Your task to perform on an android device: Show me popular games on the Play Store Image 0: 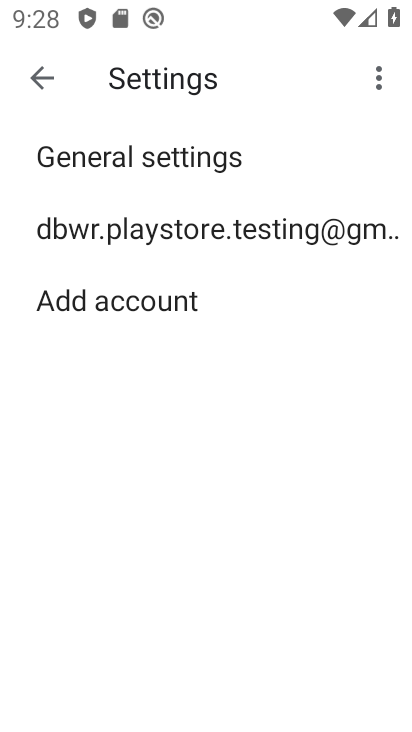
Step 0: press home button
Your task to perform on an android device: Show me popular games on the Play Store Image 1: 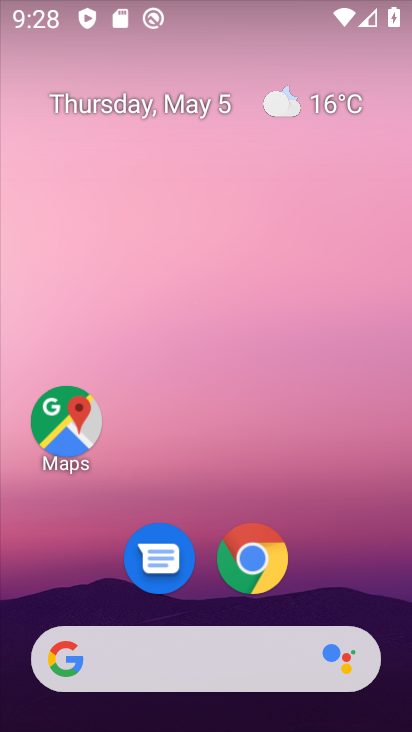
Step 1: drag from (327, 537) to (199, 84)
Your task to perform on an android device: Show me popular games on the Play Store Image 2: 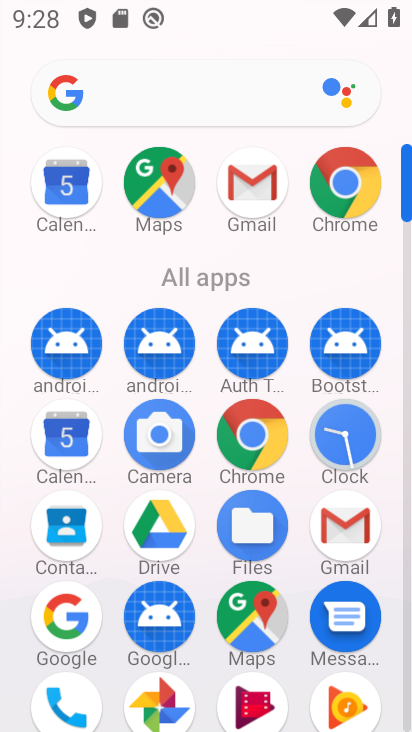
Step 2: drag from (298, 577) to (277, 345)
Your task to perform on an android device: Show me popular games on the Play Store Image 3: 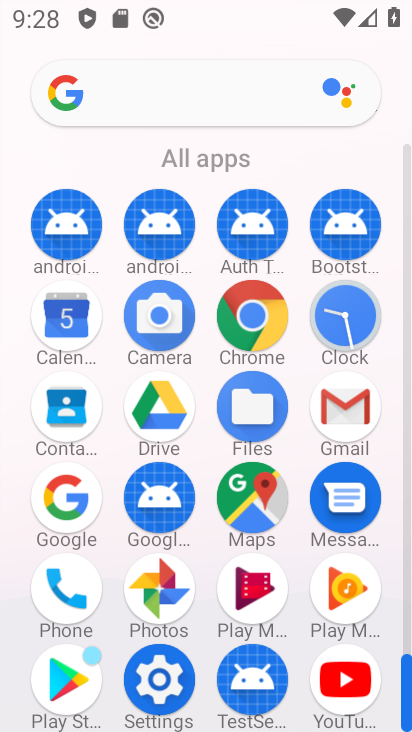
Step 3: click (77, 673)
Your task to perform on an android device: Show me popular games on the Play Store Image 4: 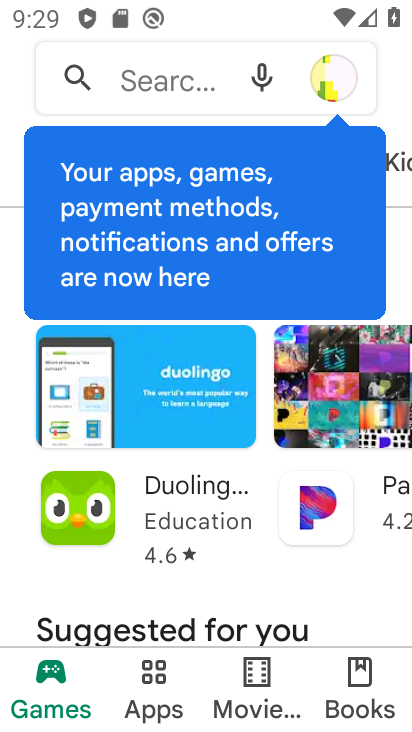
Step 4: click (10, 313)
Your task to perform on an android device: Show me popular games on the Play Store Image 5: 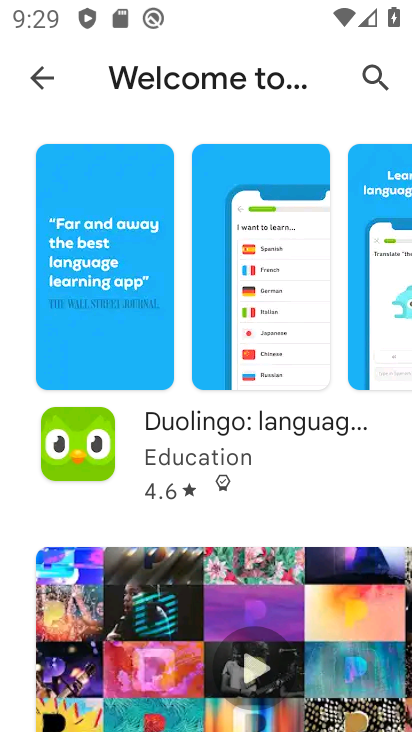
Step 5: click (36, 89)
Your task to perform on an android device: Show me popular games on the Play Store Image 6: 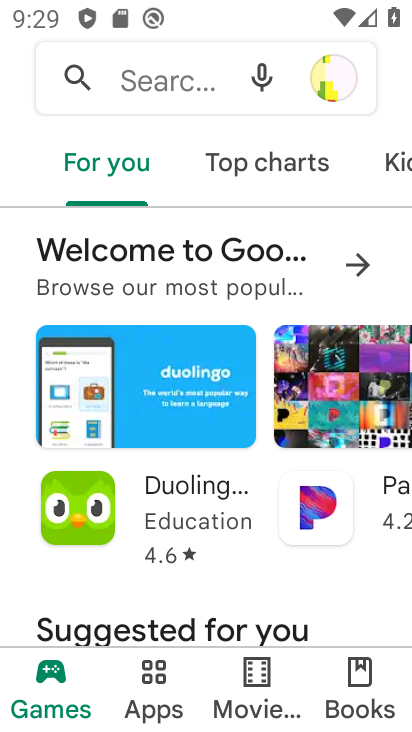
Step 6: click (229, 240)
Your task to perform on an android device: Show me popular games on the Play Store Image 7: 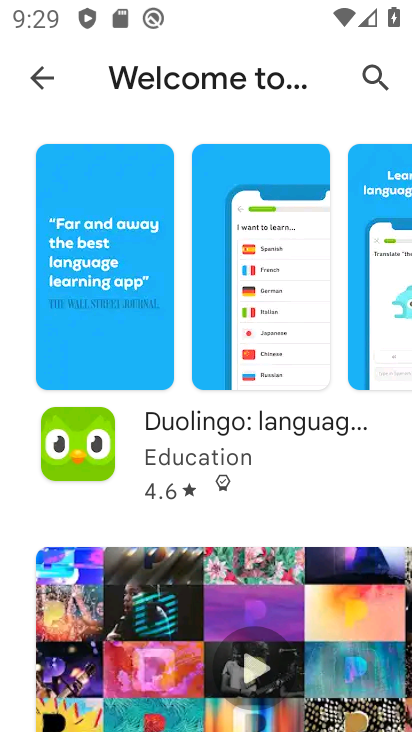
Step 7: task complete